Your task to perform on an android device: Open calendar and show me the third week of next month Image 0: 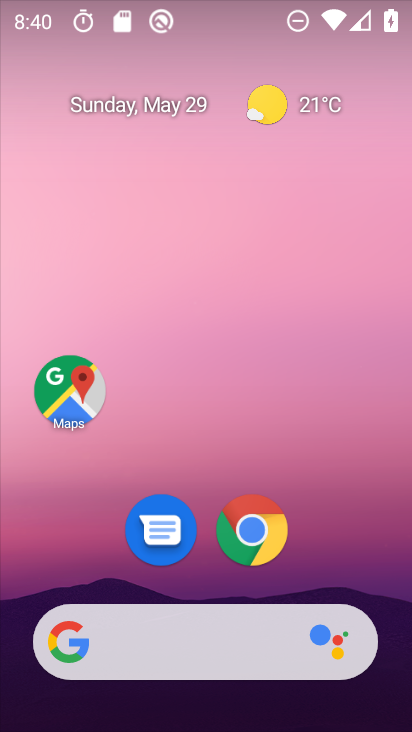
Step 0: drag from (266, 661) to (242, 159)
Your task to perform on an android device: Open calendar and show me the third week of next month Image 1: 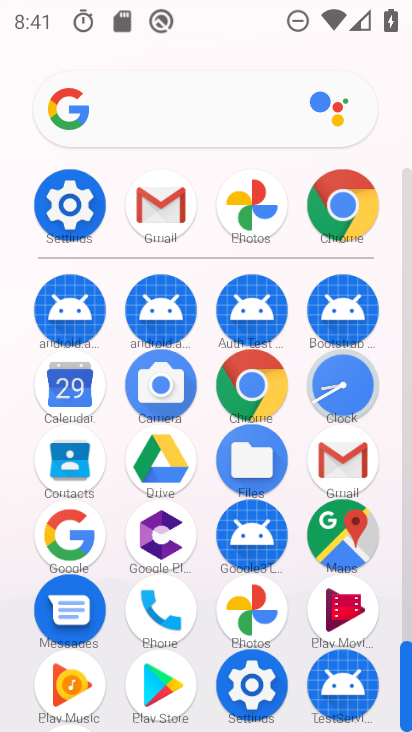
Step 1: click (79, 382)
Your task to perform on an android device: Open calendar and show me the third week of next month Image 2: 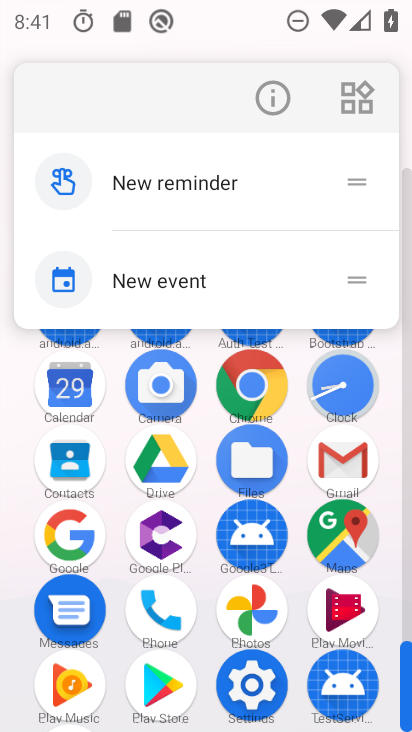
Step 2: click (74, 381)
Your task to perform on an android device: Open calendar and show me the third week of next month Image 3: 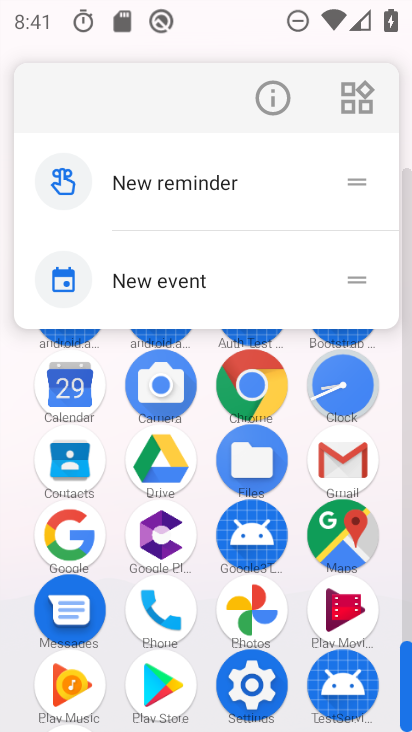
Step 3: click (75, 384)
Your task to perform on an android device: Open calendar and show me the third week of next month Image 4: 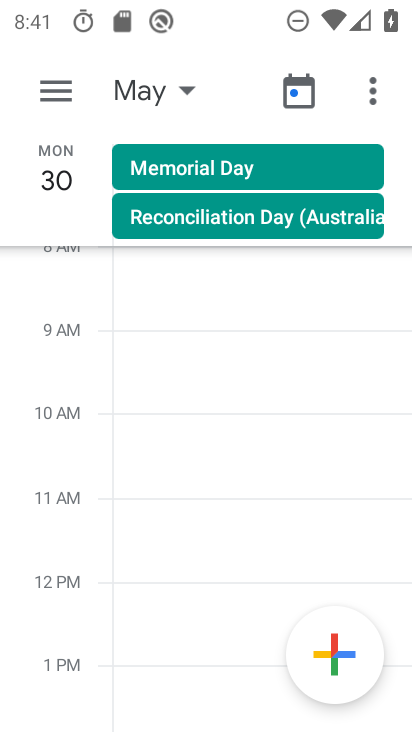
Step 4: click (40, 98)
Your task to perform on an android device: Open calendar and show me the third week of next month Image 5: 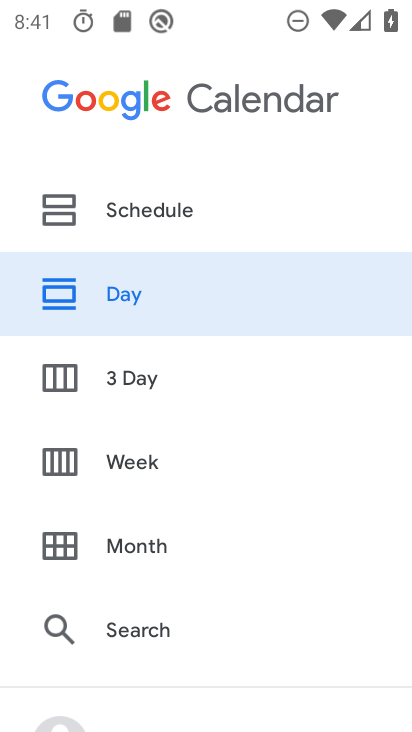
Step 5: click (125, 550)
Your task to perform on an android device: Open calendar and show me the third week of next month Image 6: 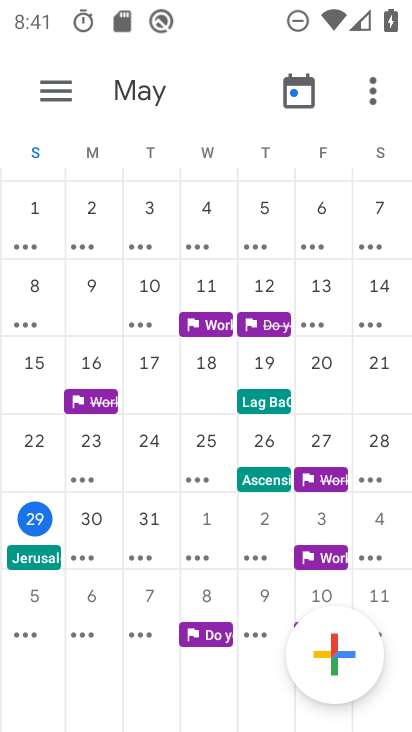
Step 6: drag from (368, 450) to (55, 637)
Your task to perform on an android device: Open calendar and show me the third week of next month Image 7: 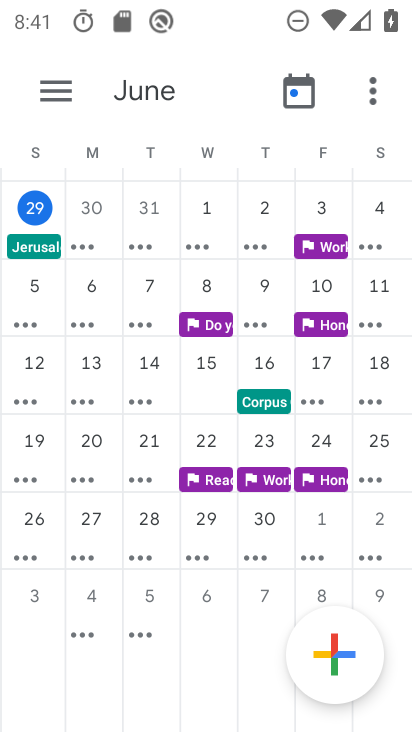
Step 7: click (102, 366)
Your task to perform on an android device: Open calendar and show me the third week of next month Image 8: 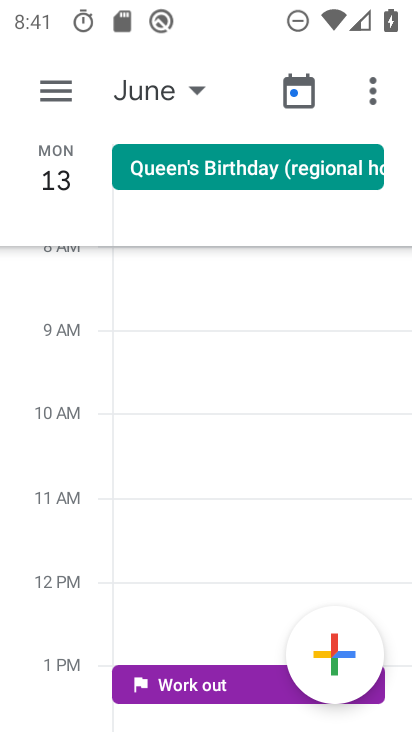
Step 8: task complete